Your task to perform on an android device: Open the Play Movies app and select the watchlist tab. Image 0: 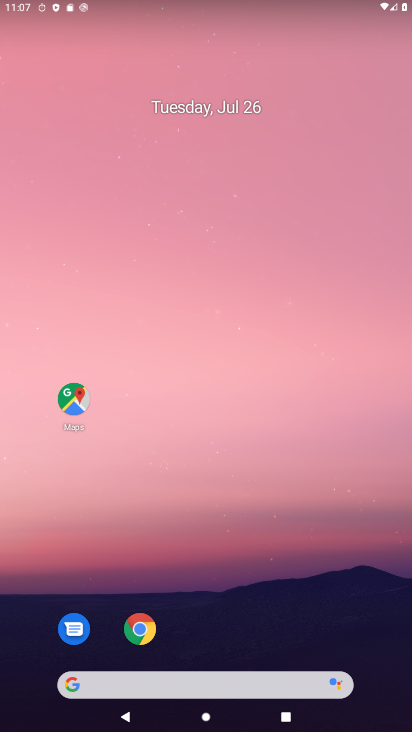
Step 0: drag from (382, 652) to (221, 58)
Your task to perform on an android device: Open the Play Movies app and select the watchlist tab. Image 1: 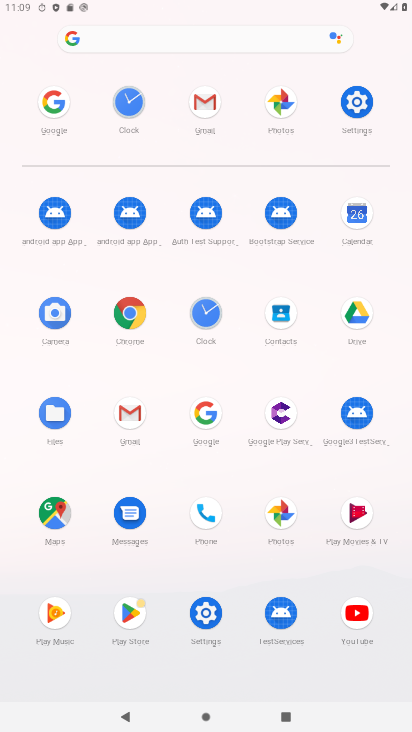
Step 1: click (369, 526)
Your task to perform on an android device: Open the Play Movies app and select the watchlist tab. Image 2: 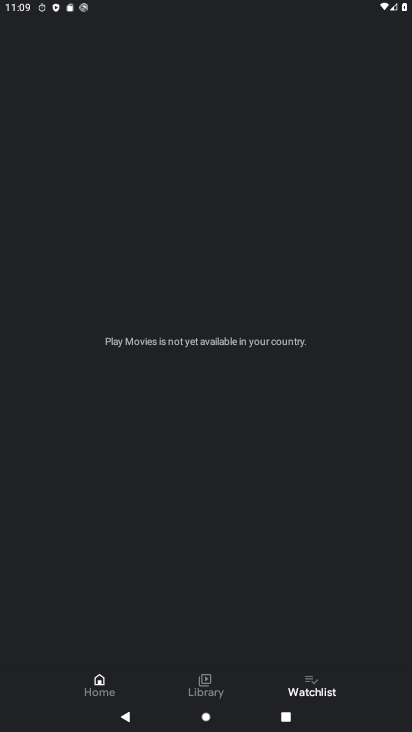
Step 2: task complete